Your task to perform on an android device: open app "Airtel Thanks" (install if not already installed) and go to login screen Image 0: 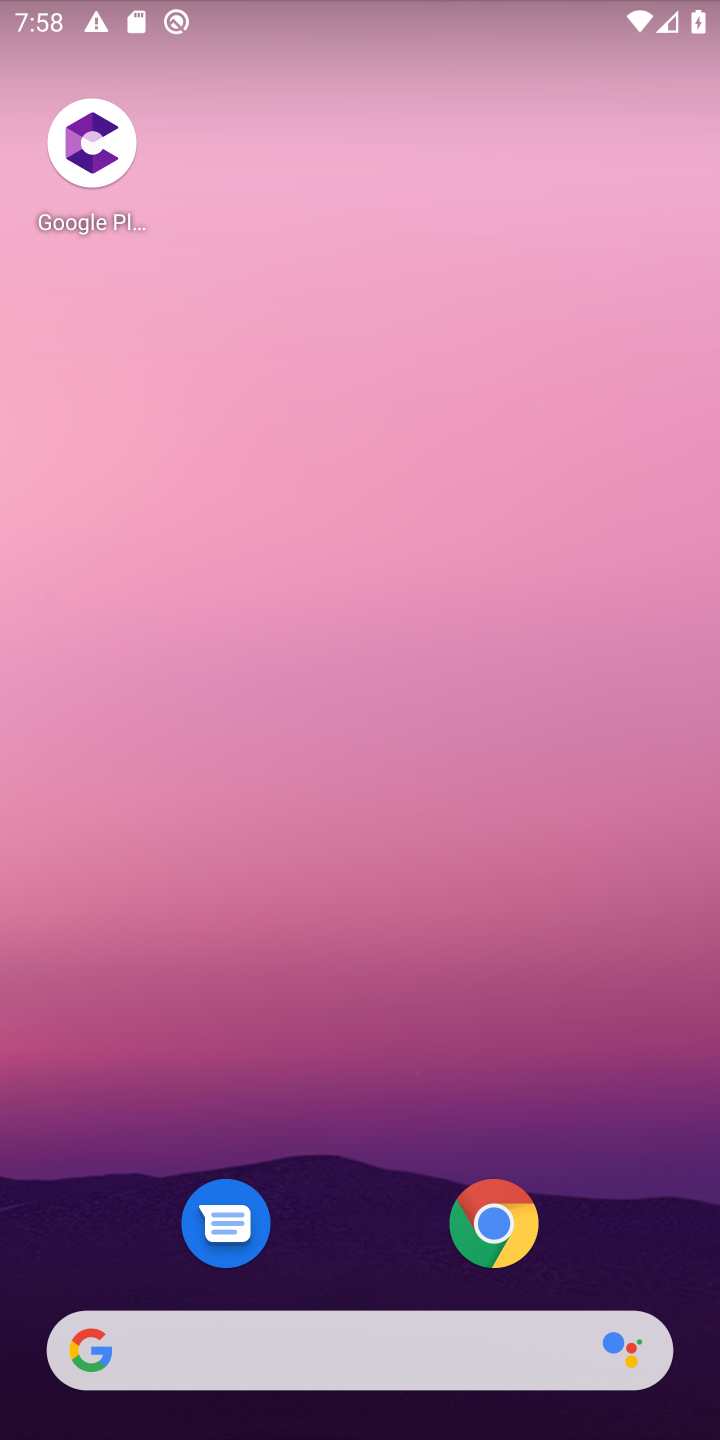
Step 0: drag from (292, 456) to (282, 83)
Your task to perform on an android device: open app "Airtel Thanks" (install if not already installed) and go to login screen Image 1: 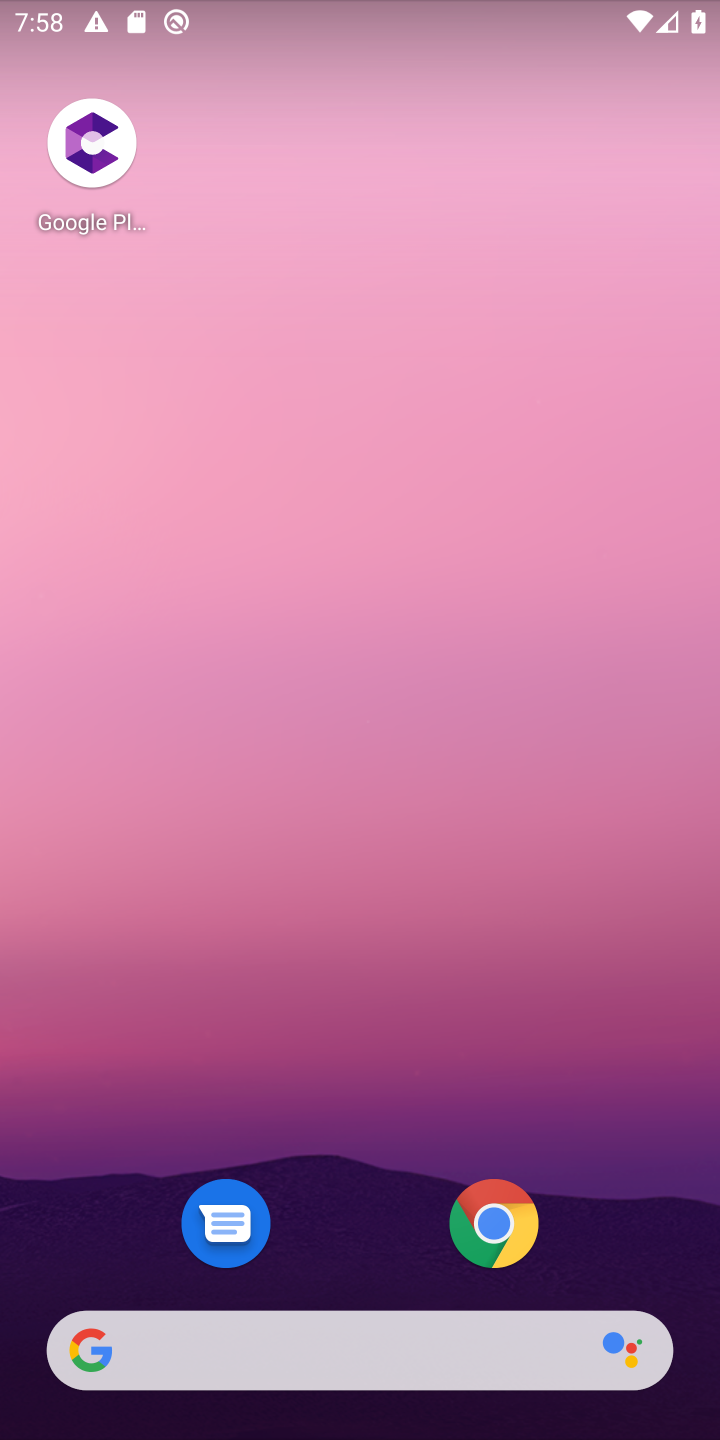
Step 1: drag from (349, 1281) to (243, 16)
Your task to perform on an android device: open app "Airtel Thanks" (install if not already installed) and go to login screen Image 2: 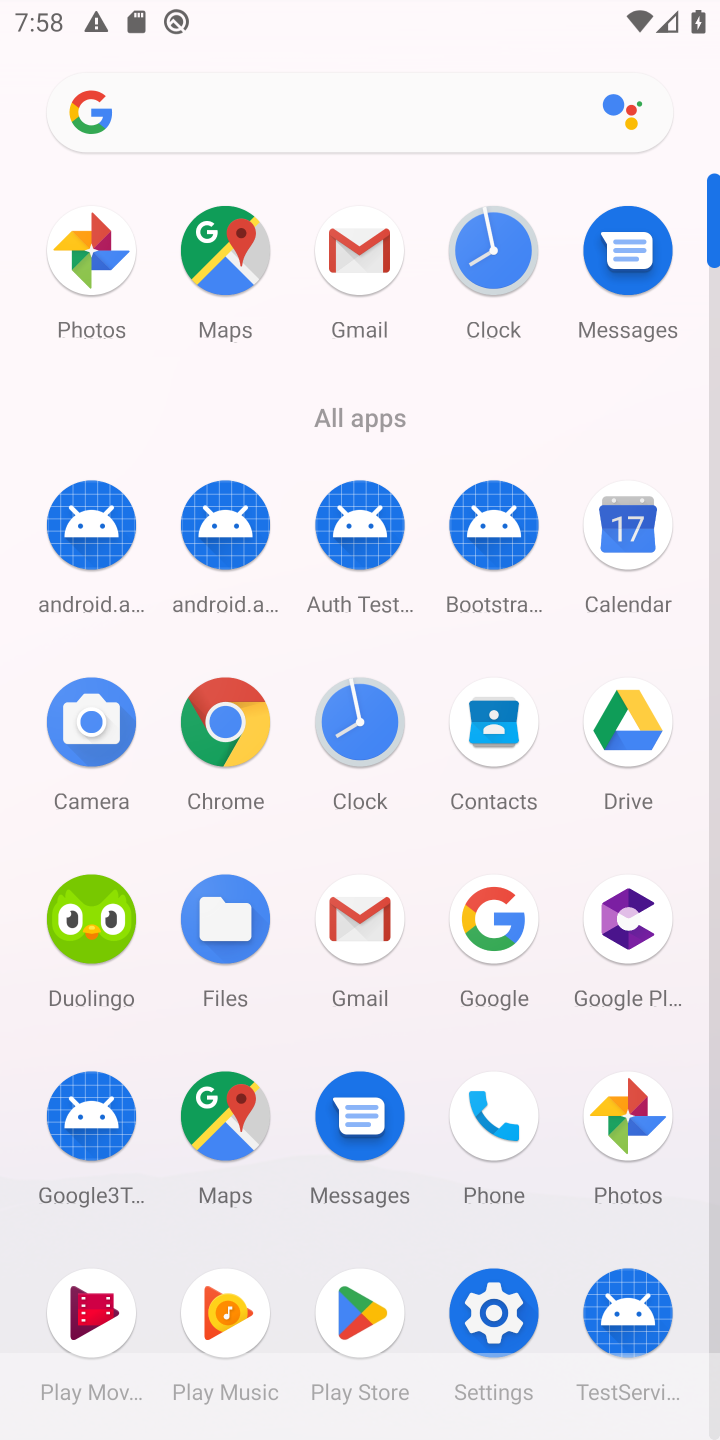
Step 2: click (359, 1301)
Your task to perform on an android device: open app "Airtel Thanks" (install if not already installed) and go to login screen Image 3: 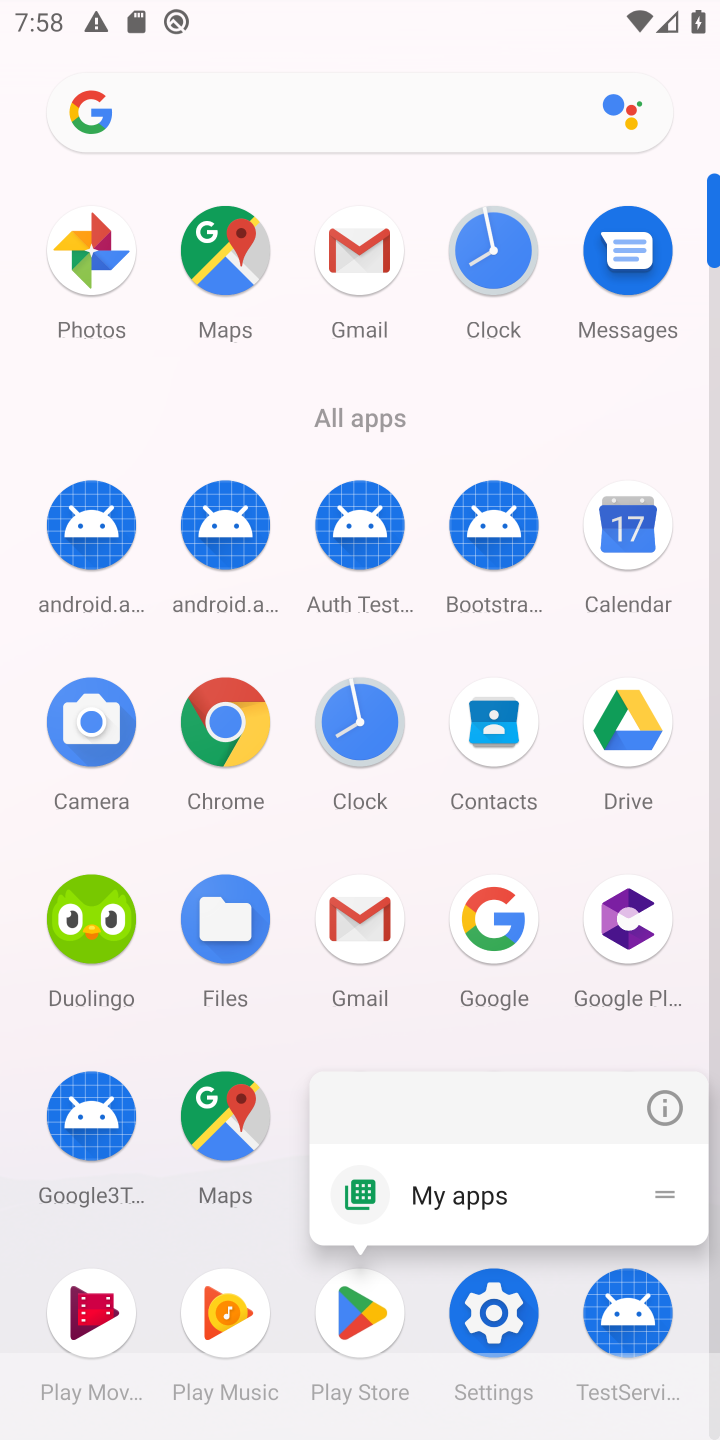
Step 3: click (350, 1312)
Your task to perform on an android device: open app "Airtel Thanks" (install if not already installed) and go to login screen Image 4: 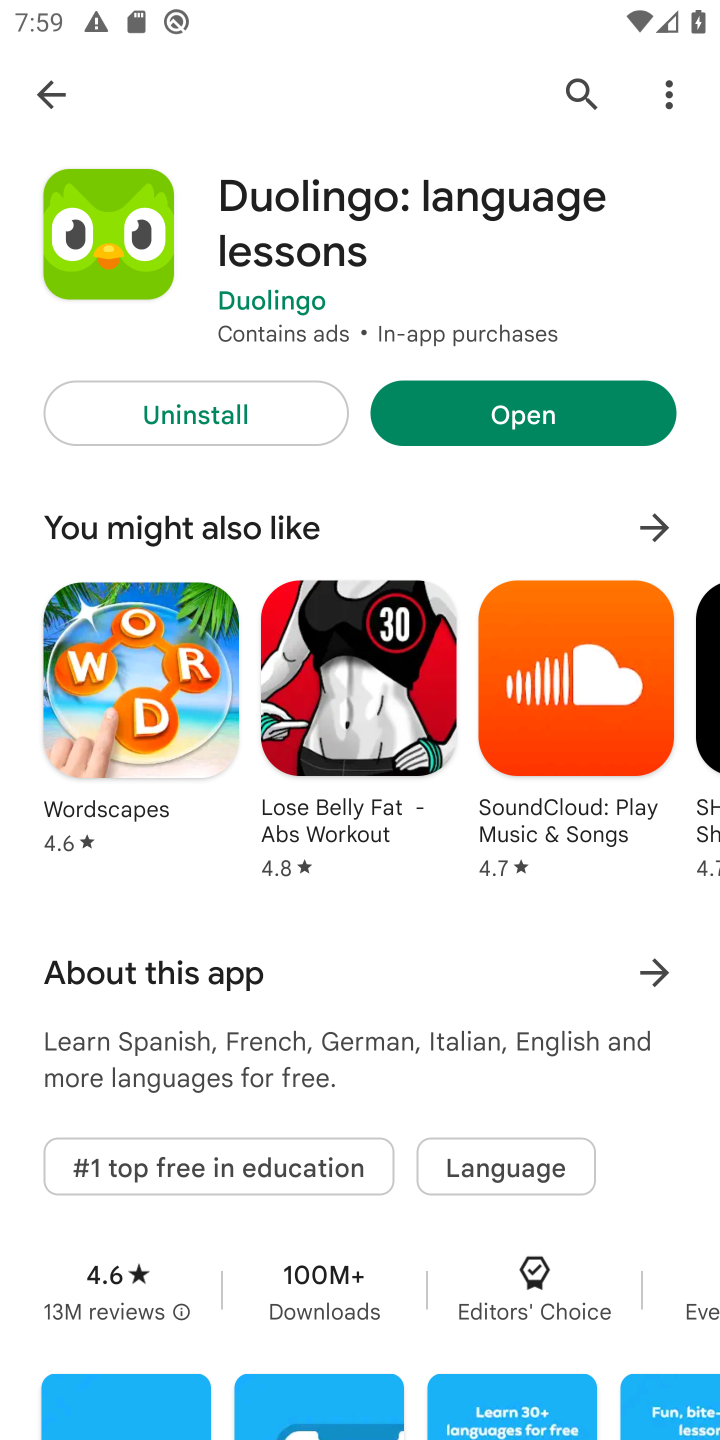
Step 4: click (586, 89)
Your task to perform on an android device: open app "Airtel Thanks" (install if not already installed) and go to login screen Image 5: 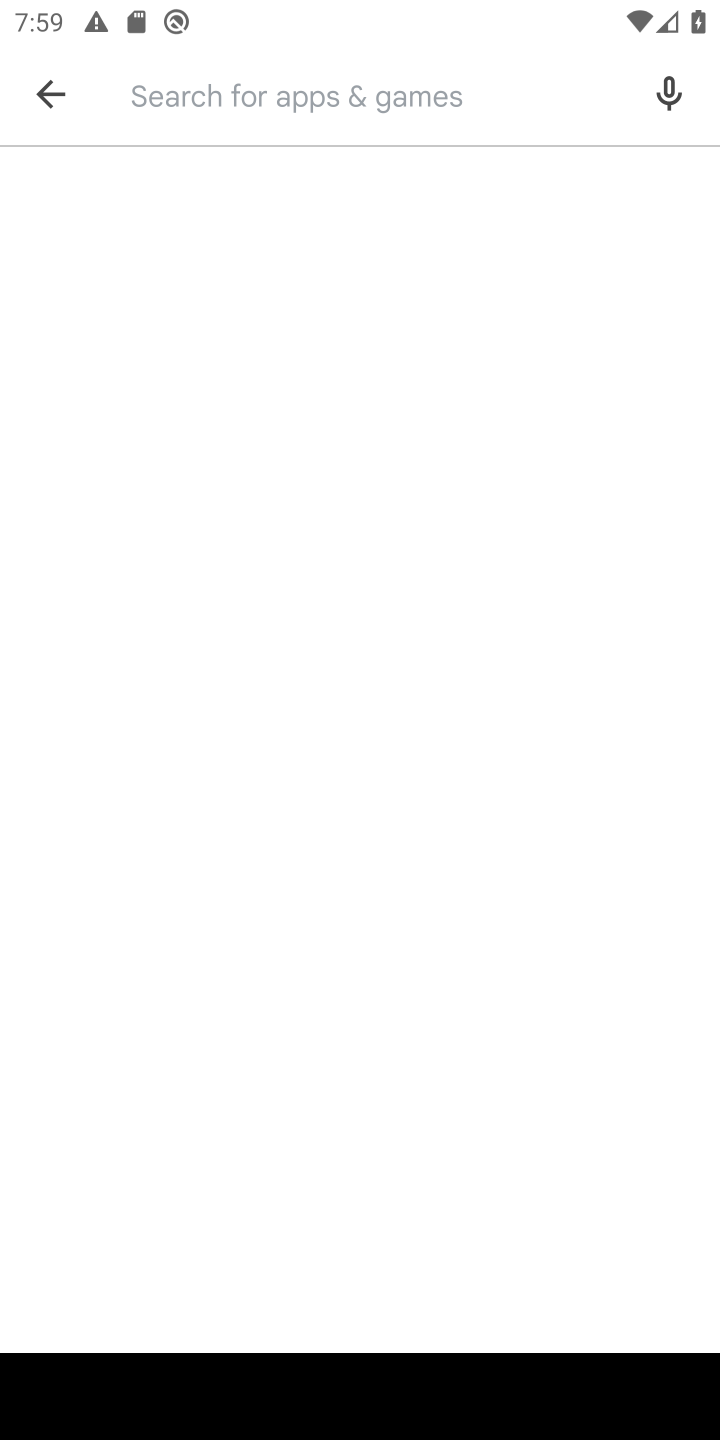
Step 5: type "Airtel Thanks"
Your task to perform on an android device: open app "Airtel Thanks" (install if not already installed) and go to login screen Image 6: 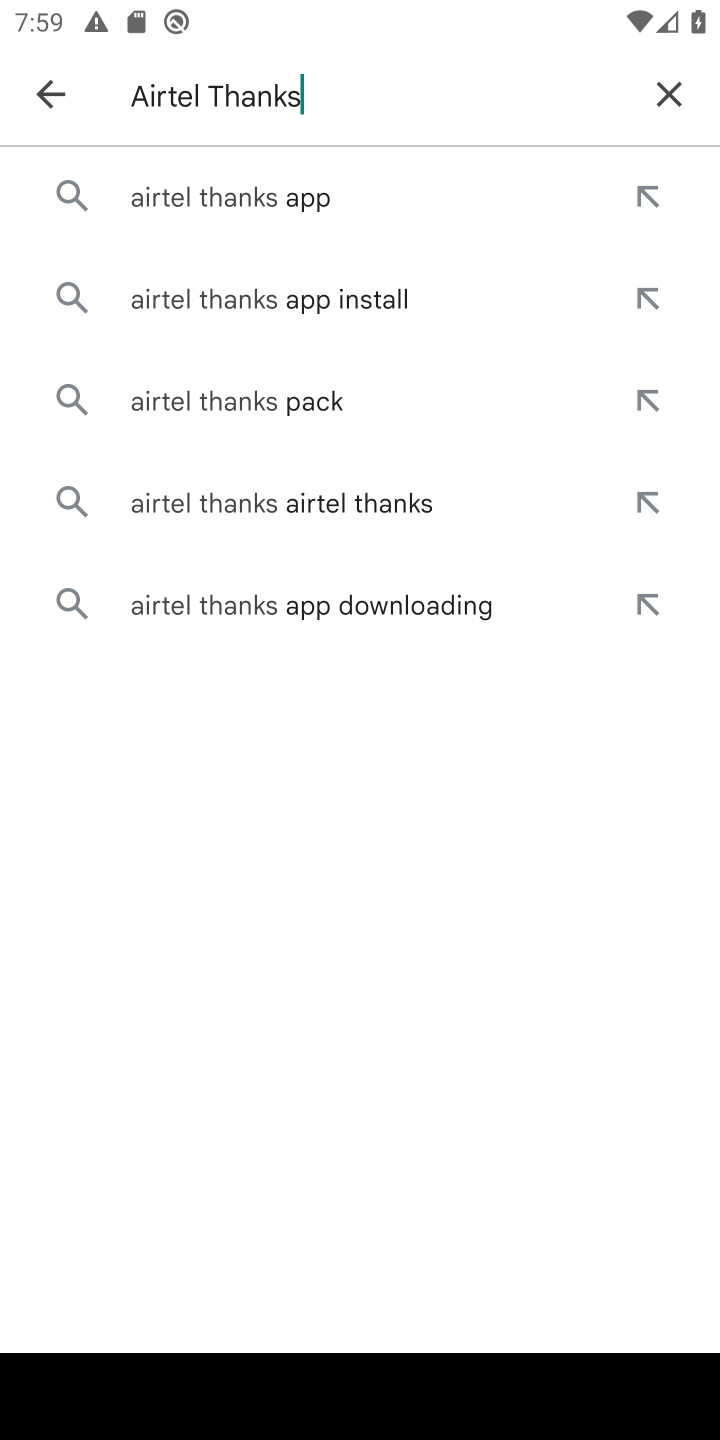
Step 6: click (219, 202)
Your task to perform on an android device: open app "Airtel Thanks" (install if not already installed) and go to login screen Image 7: 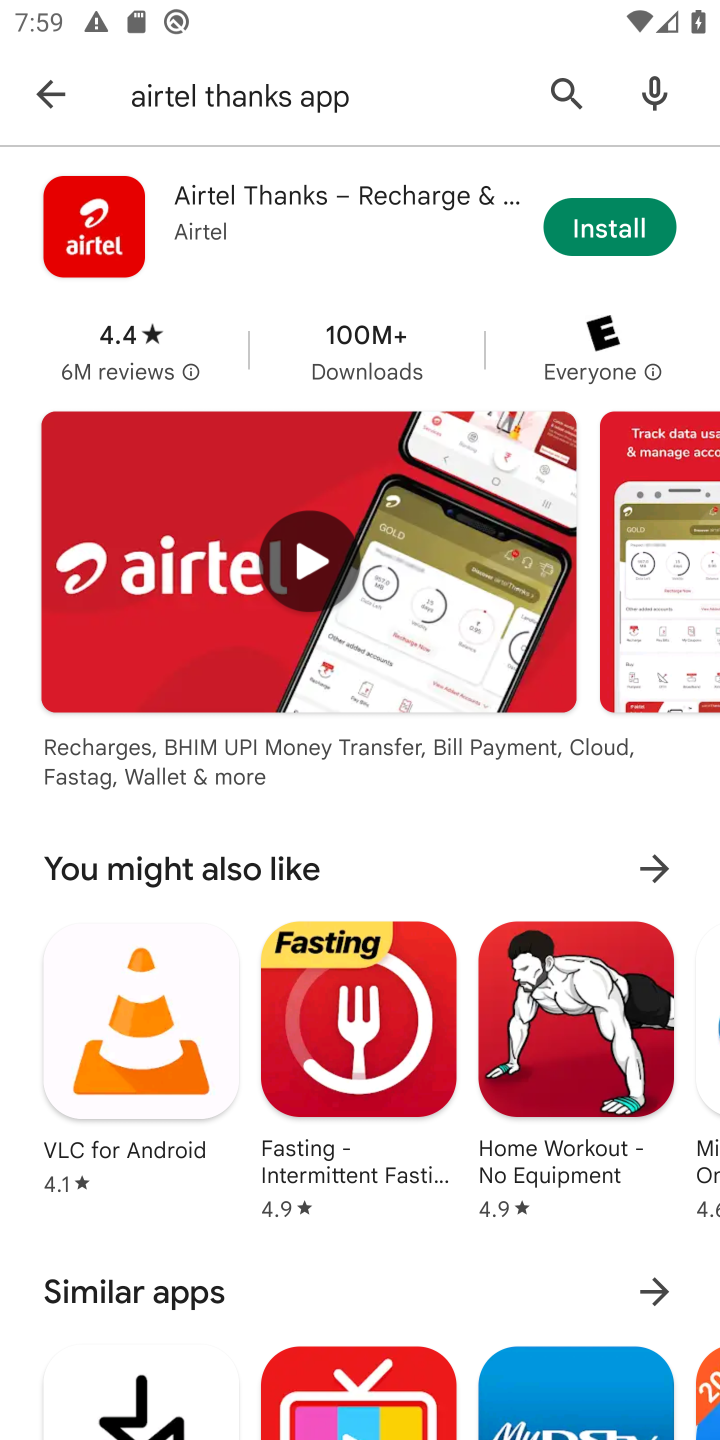
Step 7: click (621, 227)
Your task to perform on an android device: open app "Airtel Thanks" (install if not already installed) and go to login screen Image 8: 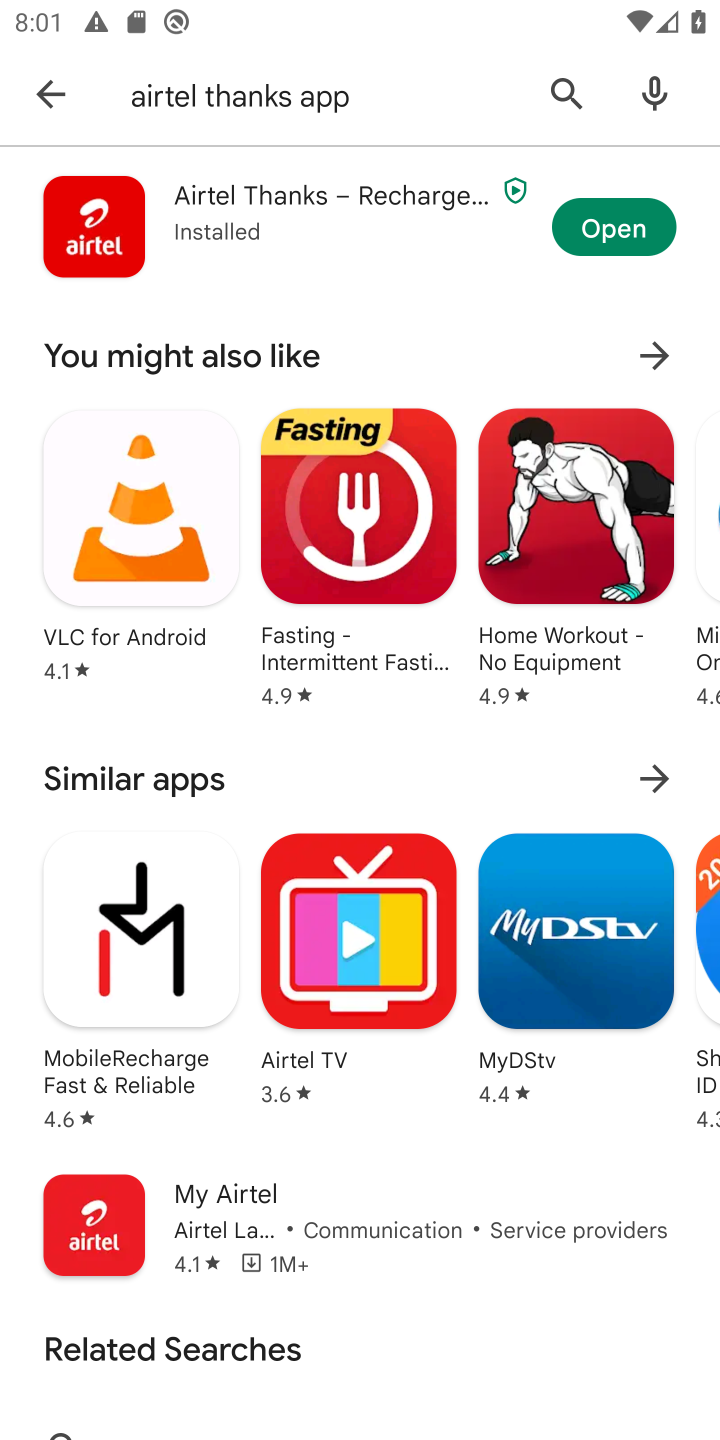
Step 8: click (630, 237)
Your task to perform on an android device: open app "Airtel Thanks" (install if not already installed) and go to login screen Image 9: 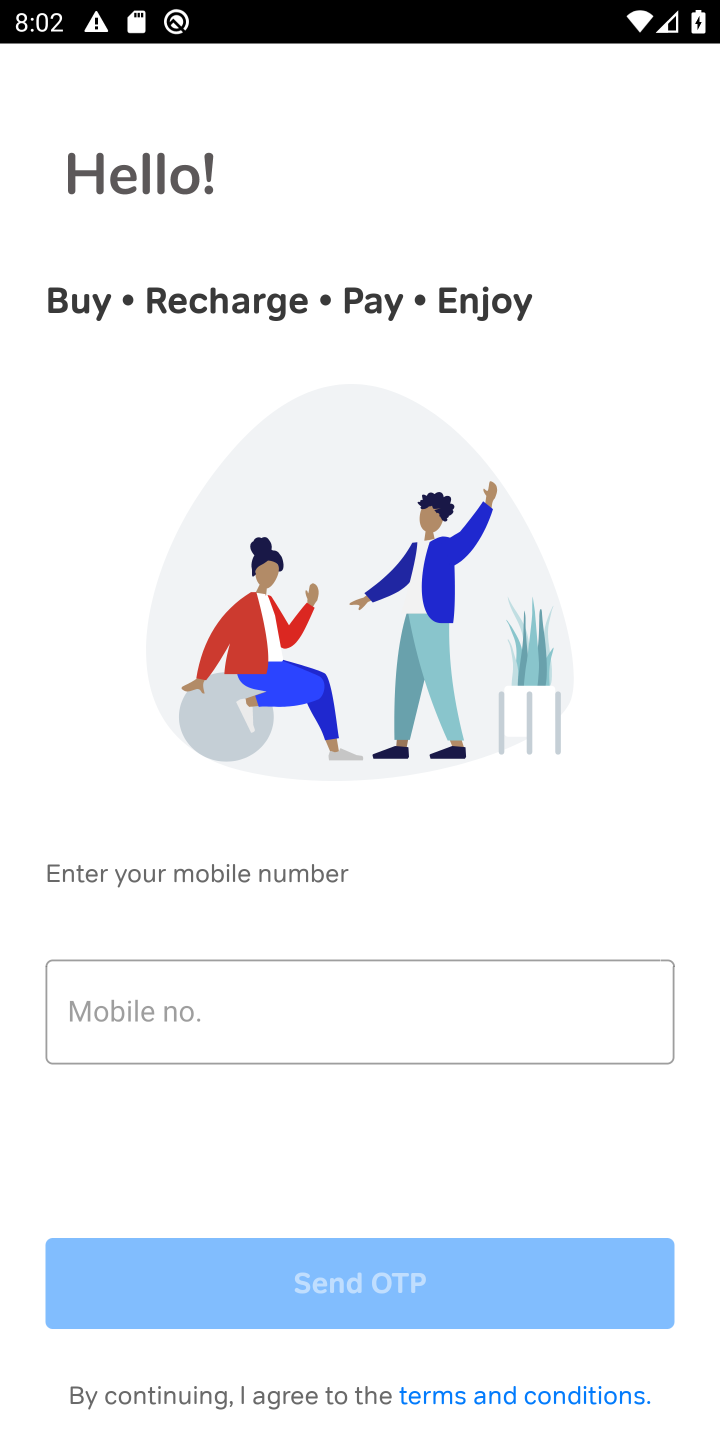
Step 9: task complete